Your task to perform on an android device: Open Google Chrome Image 0: 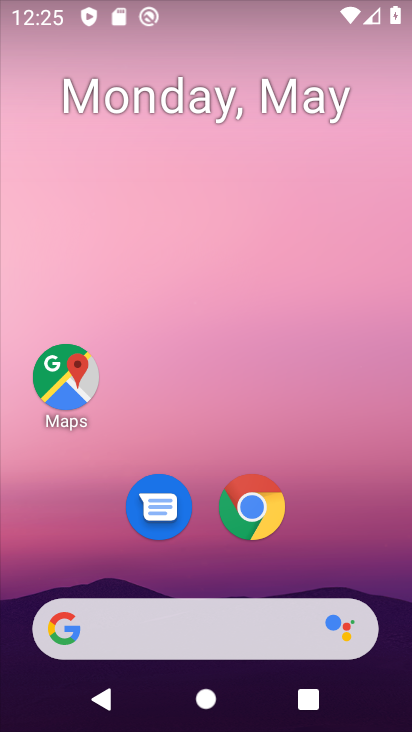
Step 0: click (250, 506)
Your task to perform on an android device: Open Google Chrome Image 1: 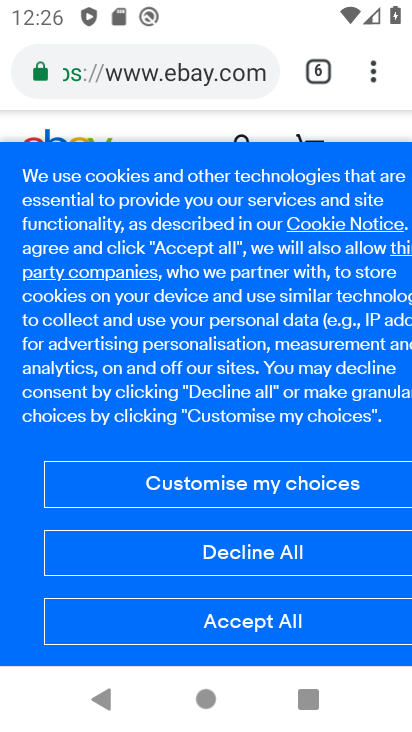
Step 1: task complete